Your task to perform on an android device: open app "Microsoft Authenticator" (install if not already installed) Image 0: 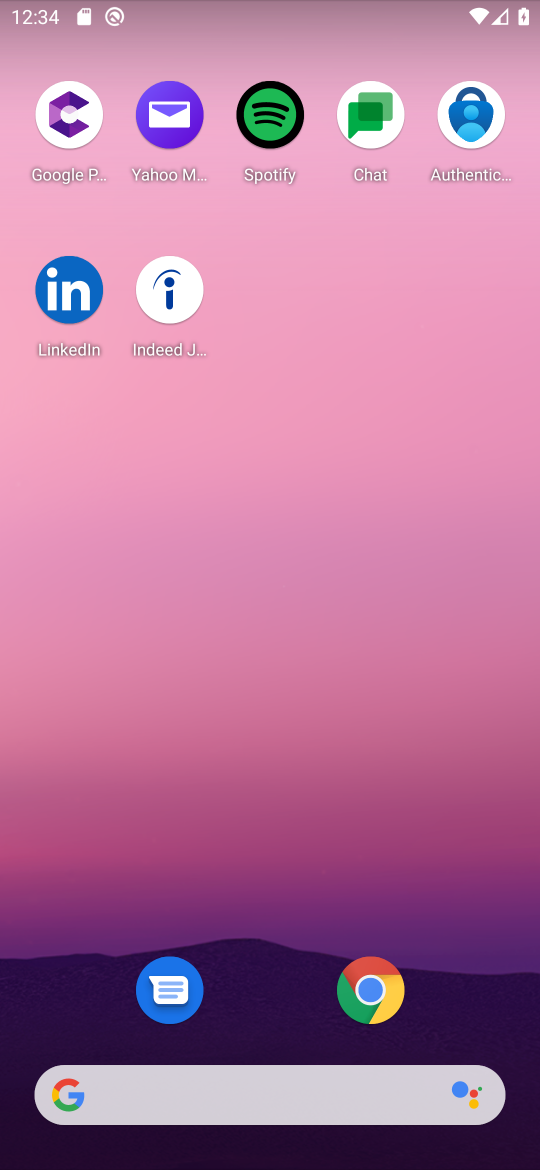
Step 0: drag from (289, 922) to (349, 336)
Your task to perform on an android device: open app "Microsoft Authenticator" (install if not already installed) Image 1: 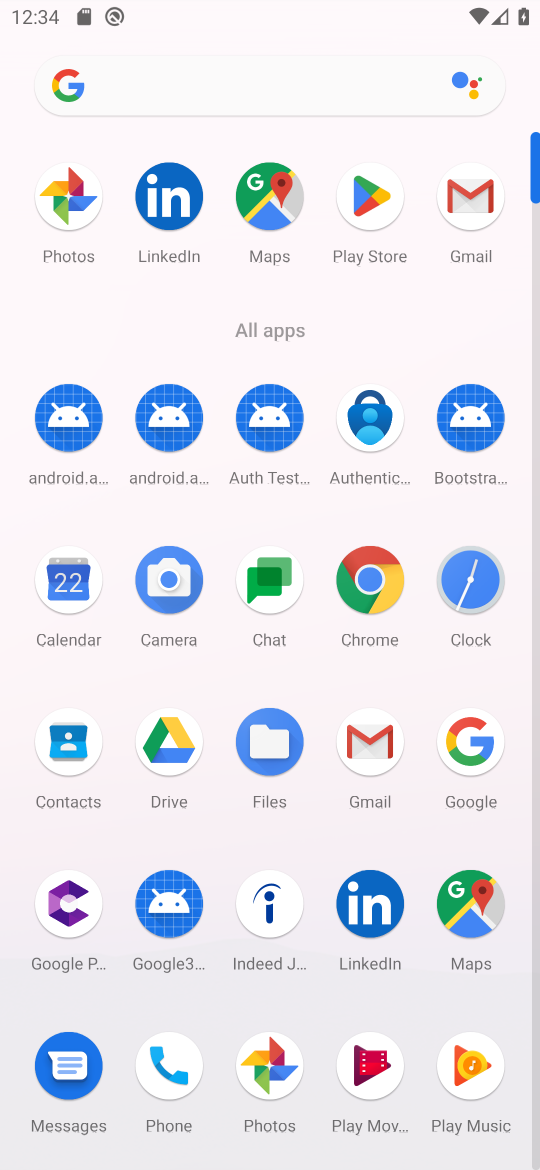
Step 1: click (381, 215)
Your task to perform on an android device: open app "Microsoft Authenticator" (install if not already installed) Image 2: 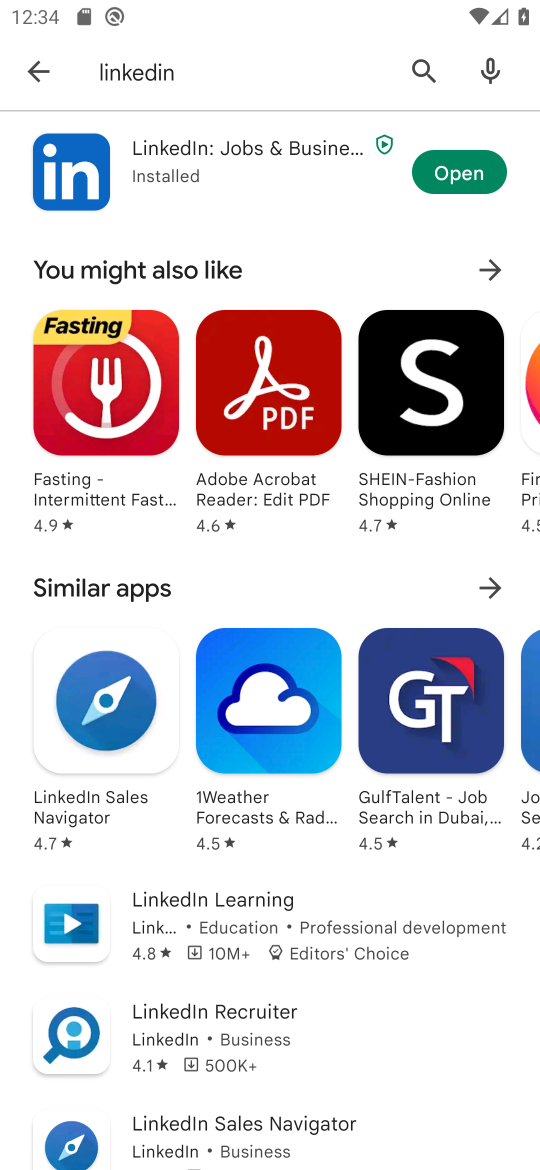
Step 2: click (424, 69)
Your task to perform on an android device: open app "Microsoft Authenticator" (install if not already installed) Image 3: 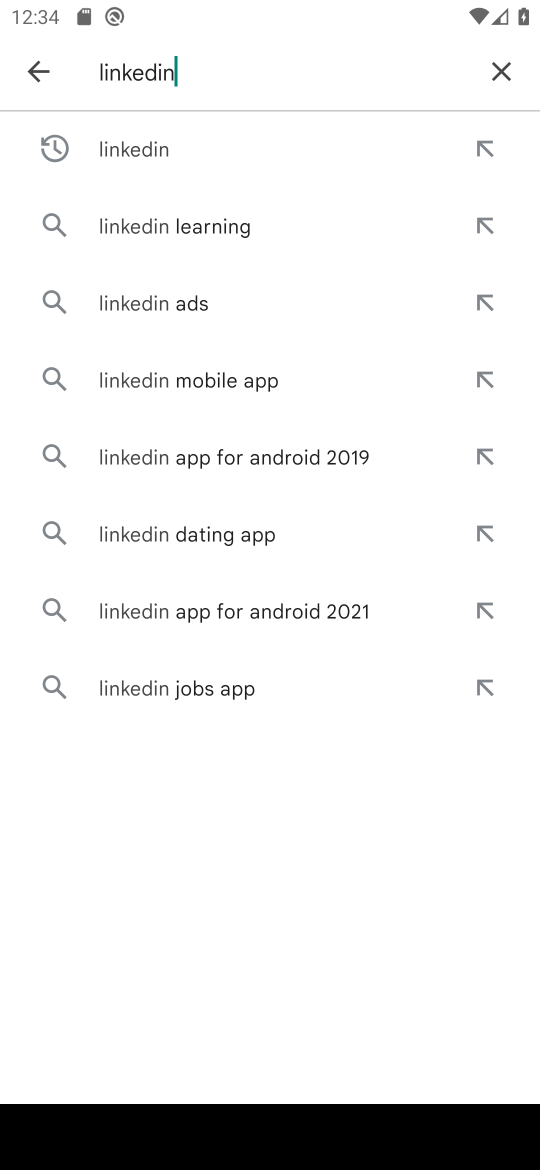
Step 3: click (495, 67)
Your task to perform on an android device: open app "Microsoft Authenticator" (install if not already installed) Image 4: 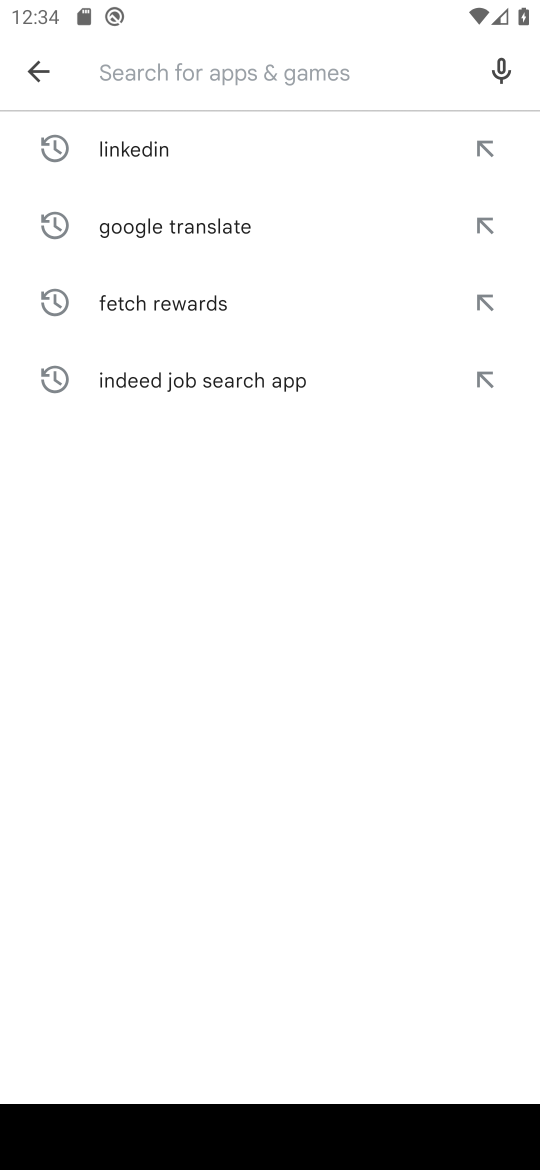
Step 4: type "Microsoft Authenticator"
Your task to perform on an android device: open app "Microsoft Authenticator" (install if not already installed) Image 5: 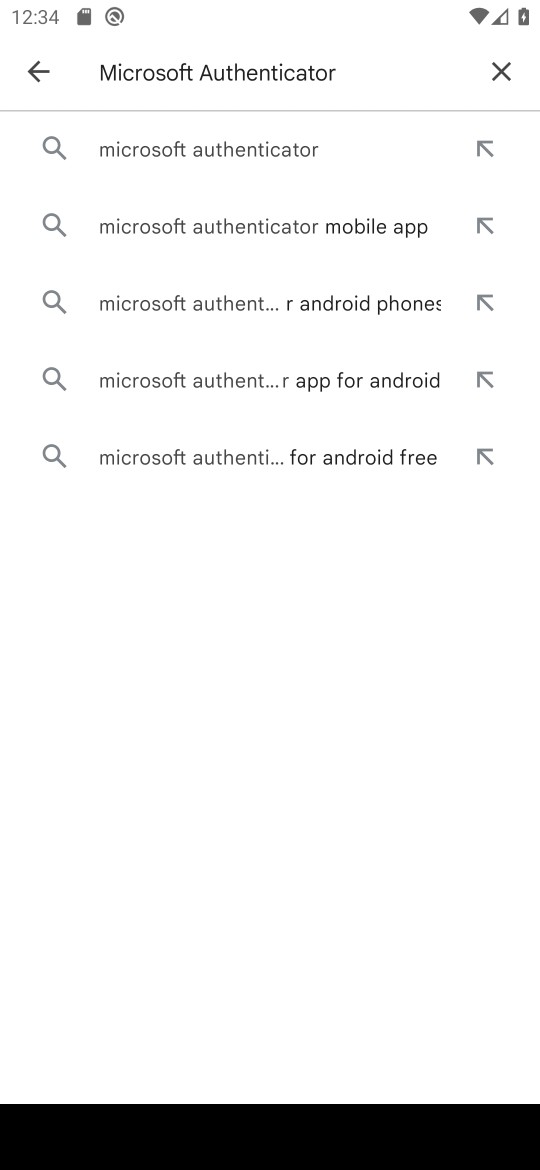
Step 5: click (286, 146)
Your task to perform on an android device: open app "Microsoft Authenticator" (install if not already installed) Image 6: 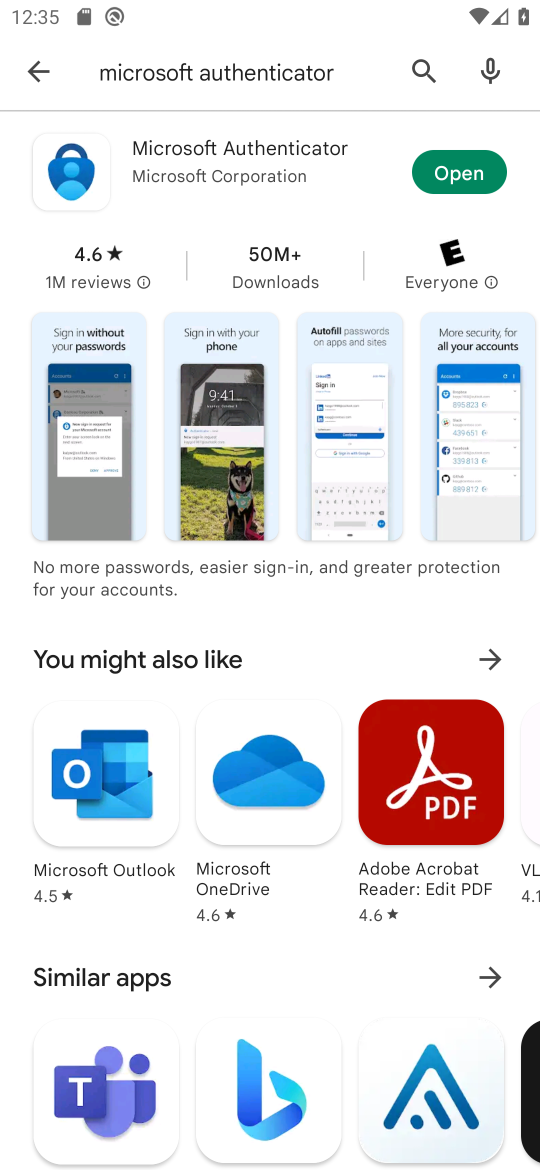
Step 6: click (457, 172)
Your task to perform on an android device: open app "Microsoft Authenticator" (install if not already installed) Image 7: 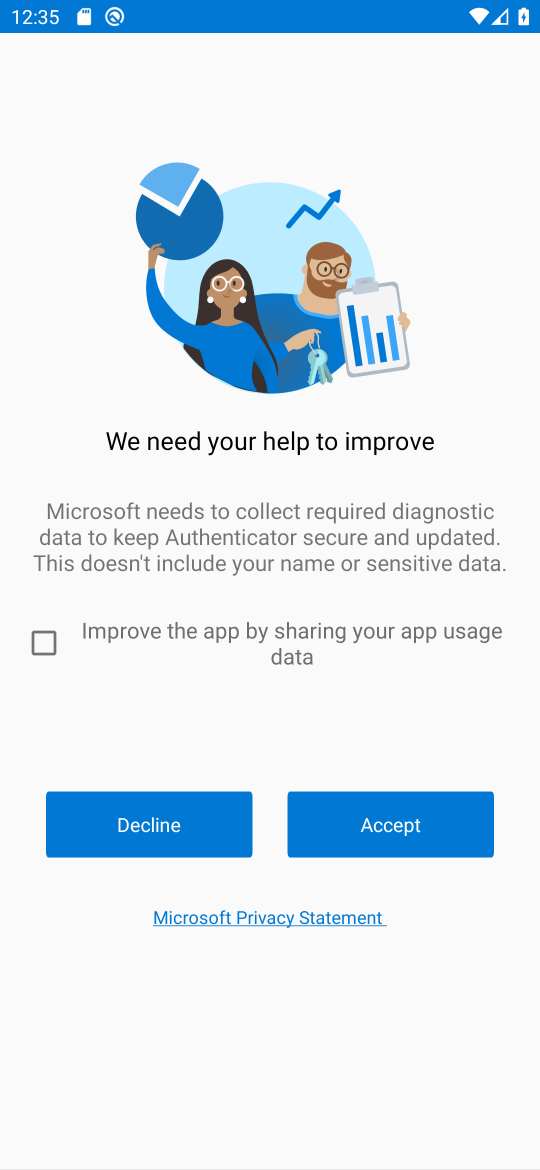
Step 7: task complete